Your task to perform on an android device: turn off airplane mode Image 0: 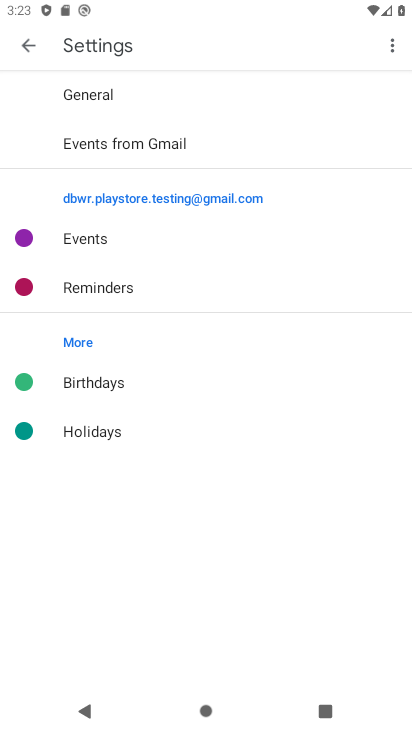
Step 0: press home button
Your task to perform on an android device: turn off airplane mode Image 1: 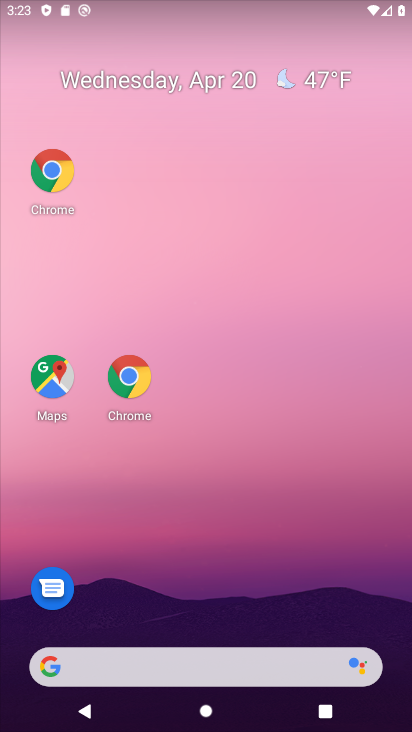
Step 1: task complete